Your task to perform on an android device: turn pop-ups off in chrome Image 0: 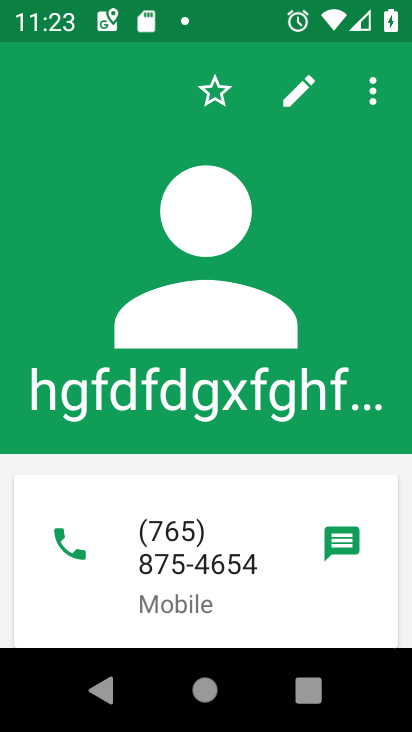
Step 0: press home button
Your task to perform on an android device: turn pop-ups off in chrome Image 1: 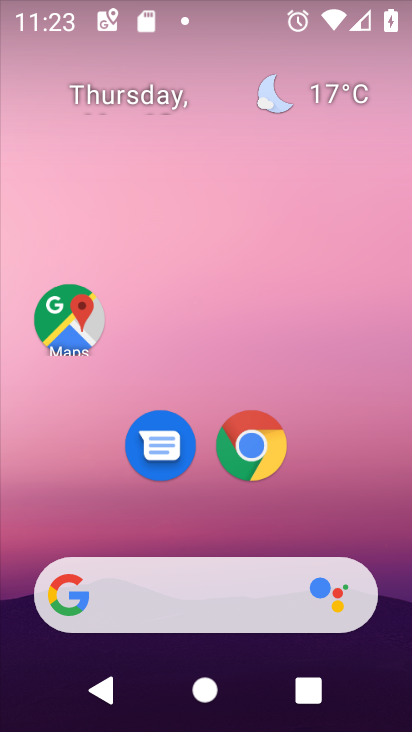
Step 1: drag from (248, 514) to (334, 68)
Your task to perform on an android device: turn pop-ups off in chrome Image 2: 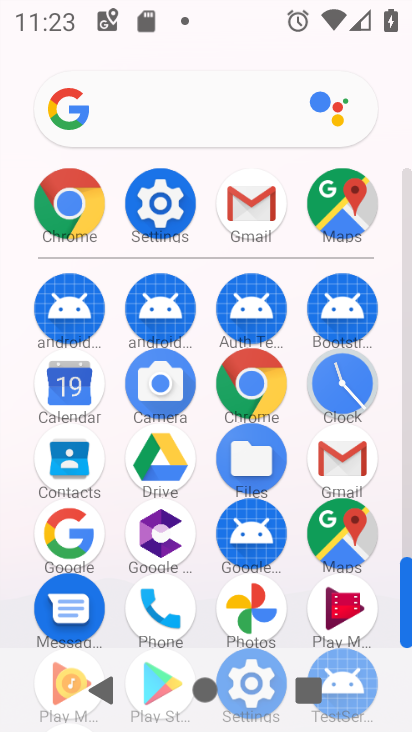
Step 2: click (257, 393)
Your task to perform on an android device: turn pop-ups off in chrome Image 3: 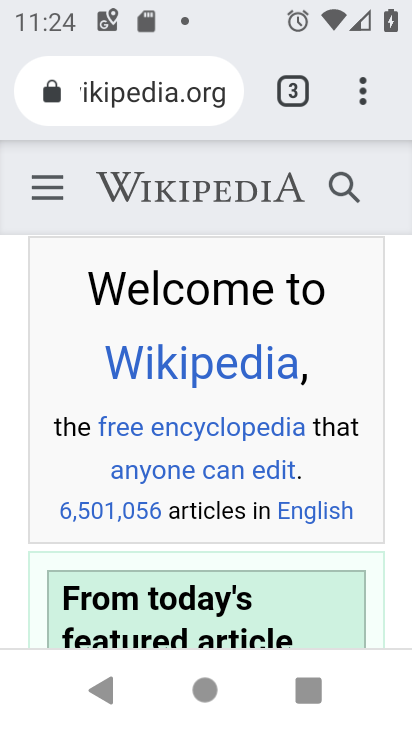
Step 3: click (364, 93)
Your task to perform on an android device: turn pop-ups off in chrome Image 4: 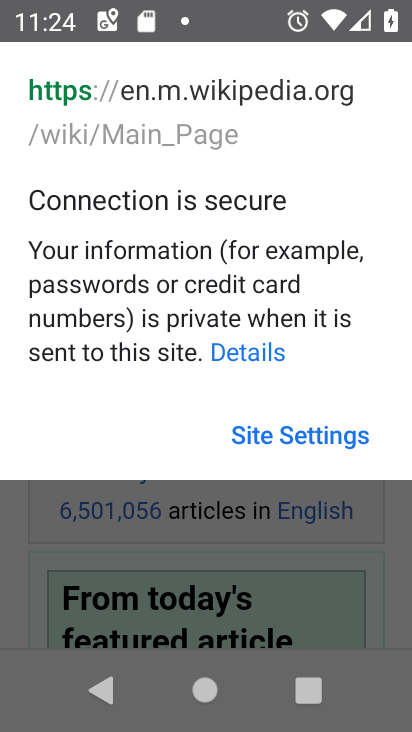
Step 4: click (334, 437)
Your task to perform on an android device: turn pop-ups off in chrome Image 5: 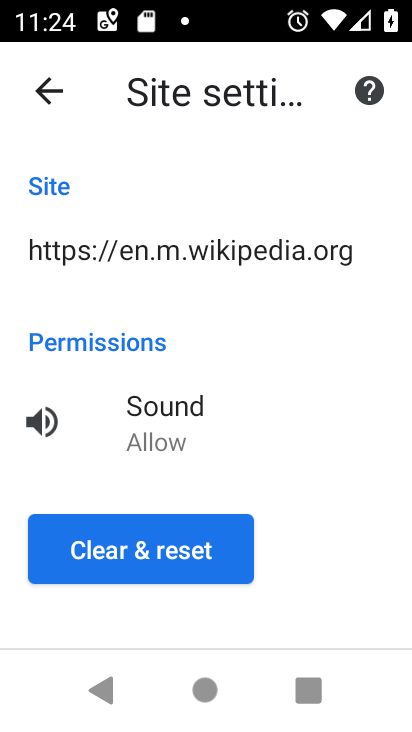
Step 5: task complete